Your task to perform on an android device: open wifi settings Image 0: 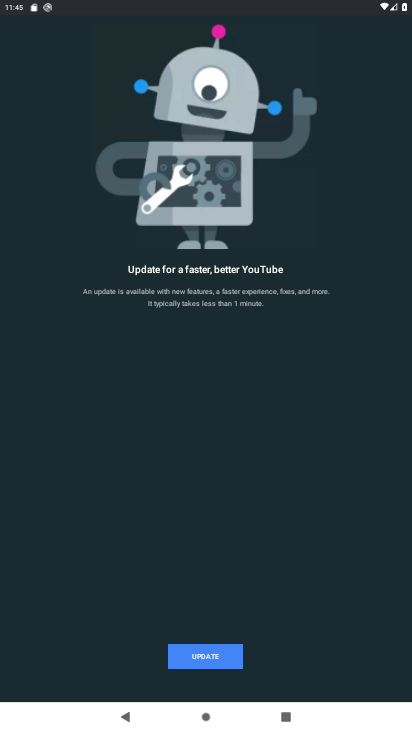
Step 0: press home button
Your task to perform on an android device: open wifi settings Image 1: 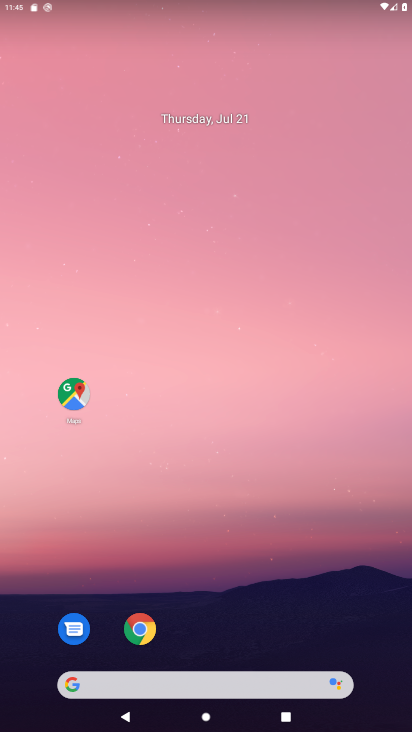
Step 1: click (190, 10)
Your task to perform on an android device: open wifi settings Image 2: 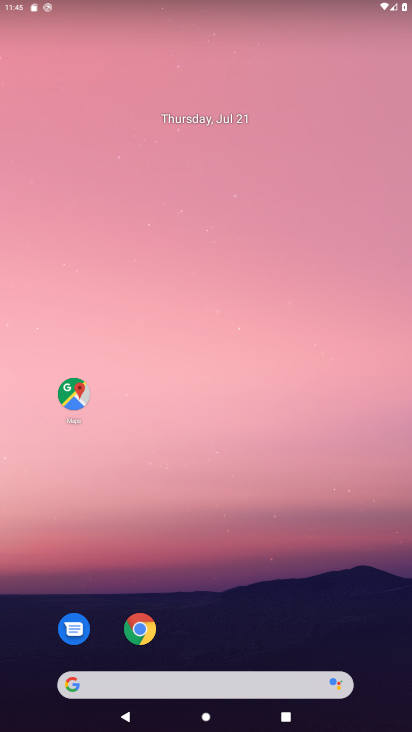
Step 2: drag from (209, 652) to (89, 1)
Your task to perform on an android device: open wifi settings Image 3: 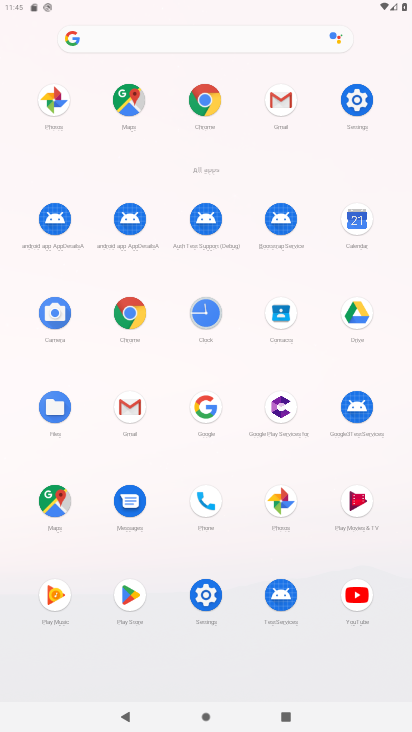
Step 3: click (208, 603)
Your task to perform on an android device: open wifi settings Image 4: 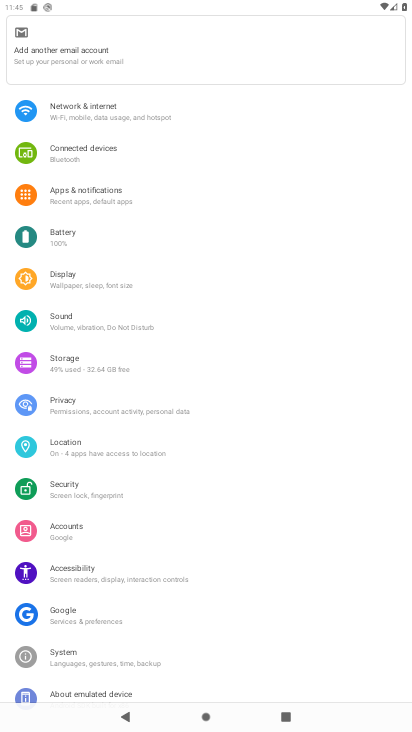
Step 4: click (96, 114)
Your task to perform on an android device: open wifi settings Image 5: 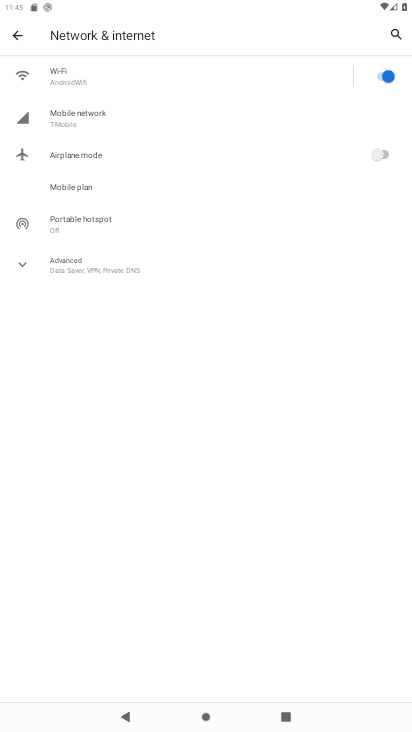
Step 5: click (92, 61)
Your task to perform on an android device: open wifi settings Image 6: 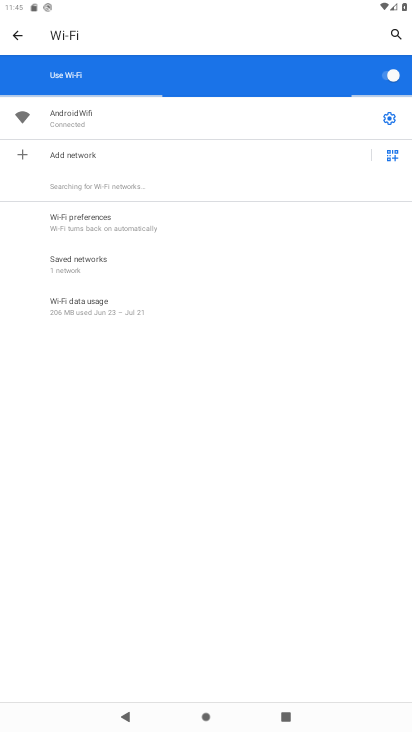
Step 6: task complete